Your task to perform on an android device: Go to Android settings Image 0: 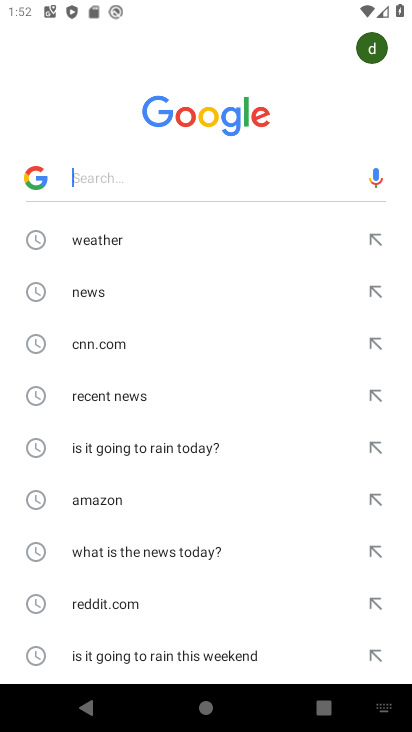
Step 0: press home button
Your task to perform on an android device: Go to Android settings Image 1: 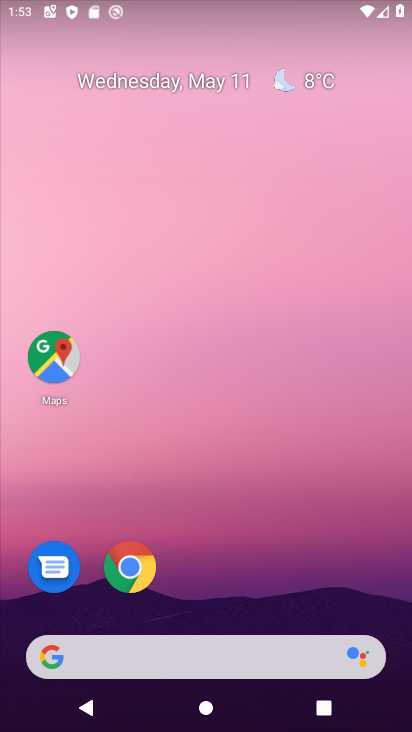
Step 1: drag from (343, 597) to (284, 242)
Your task to perform on an android device: Go to Android settings Image 2: 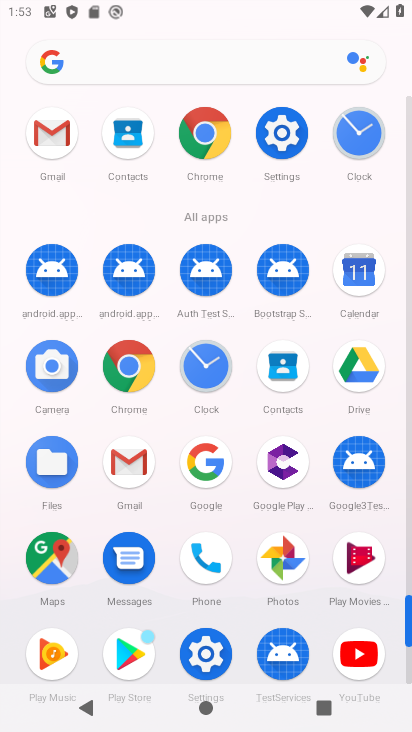
Step 2: drag from (241, 515) to (233, 279)
Your task to perform on an android device: Go to Android settings Image 3: 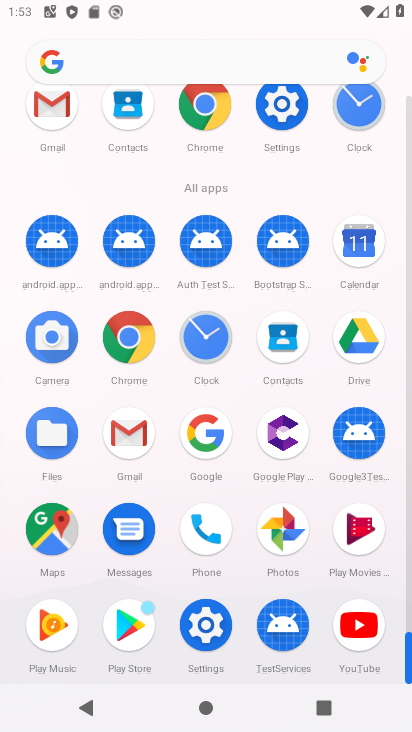
Step 3: click (186, 626)
Your task to perform on an android device: Go to Android settings Image 4: 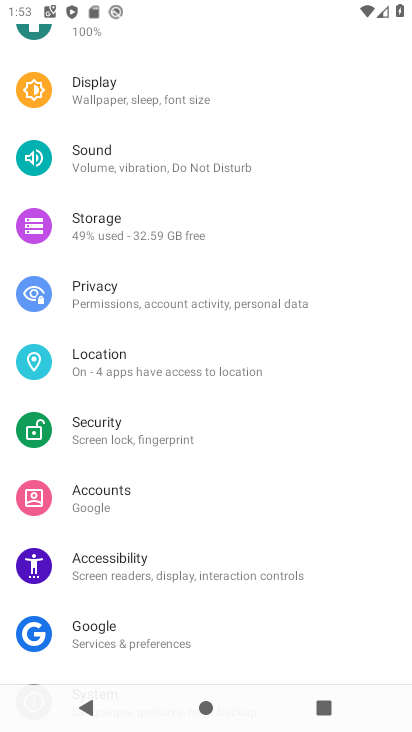
Step 4: task complete